Your task to perform on an android device: Check the news Image 0: 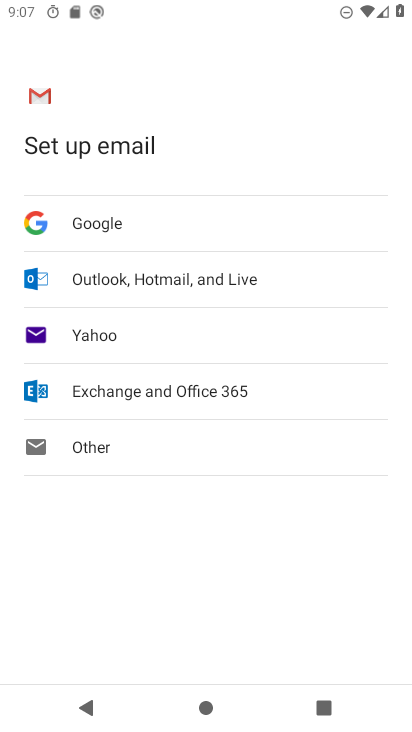
Step 0: press home button
Your task to perform on an android device: Check the news Image 1: 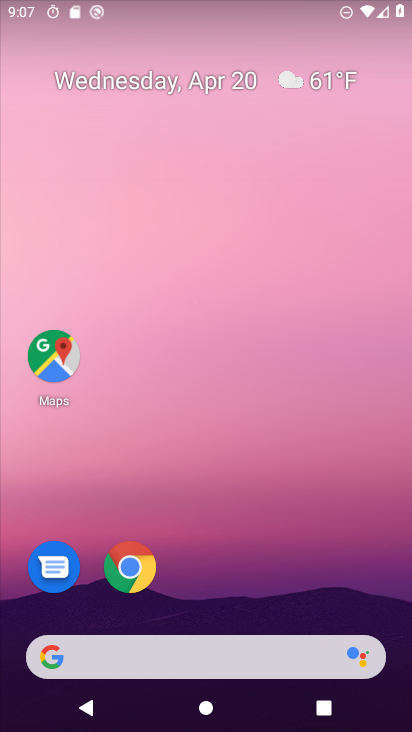
Step 1: task complete